Your task to perform on an android device: turn off improve location accuracy Image 0: 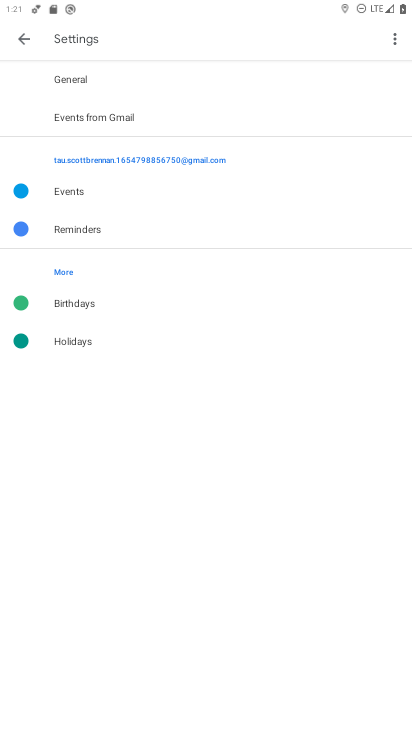
Step 0: press home button
Your task to perform on an android device: turn off improve location accuracy Image 1: 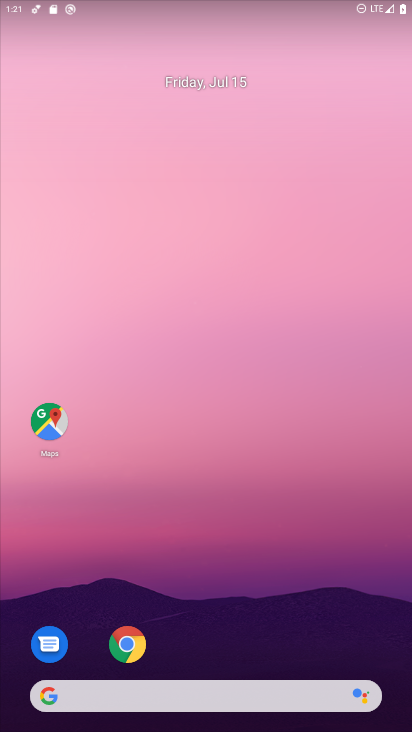
Step 1: click (116, 645)
Your task to perform on an android device: turn off improve location accuracy Image 2: 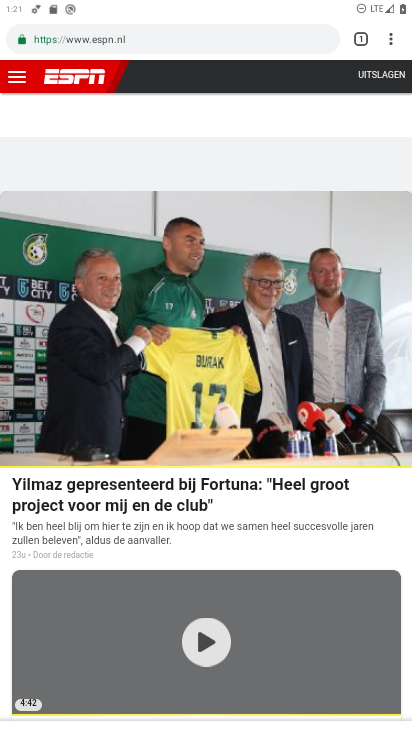
Step 2: click (360, 37)
Your task to perform on an android device: turn off improve location accuracy Image 3: 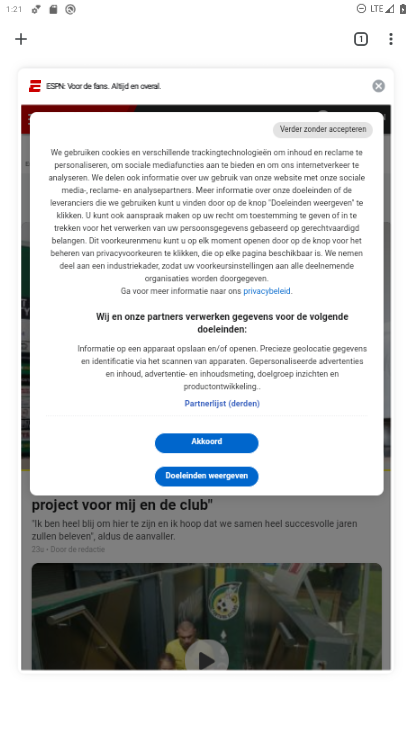
Step 3: click (377, 87)
Your task to perform on an android device: turn off improve location accuracy Image 4: 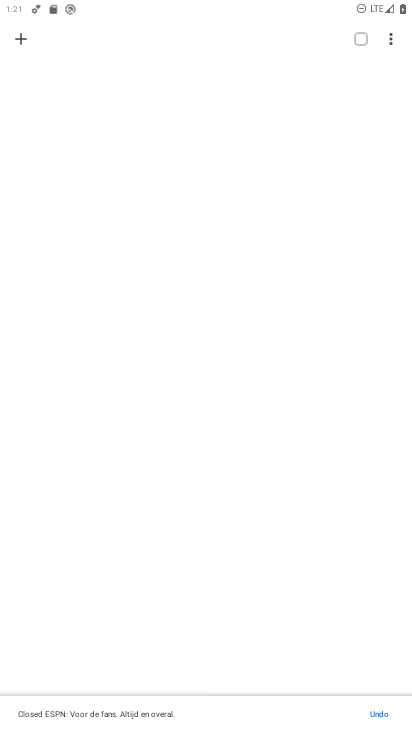
Step 4: click (18, 42)
Your task to perform on an android device: turn off improve location accuracy Image 5: 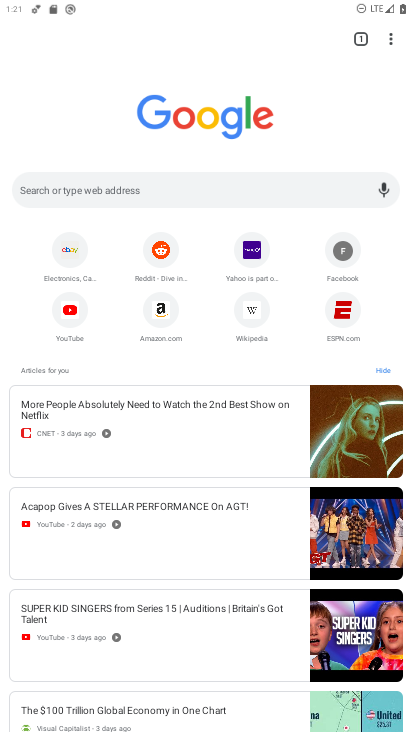
Step 5: press home button
Your task to perform on an android device: turn off improve location accuracy Image 6: 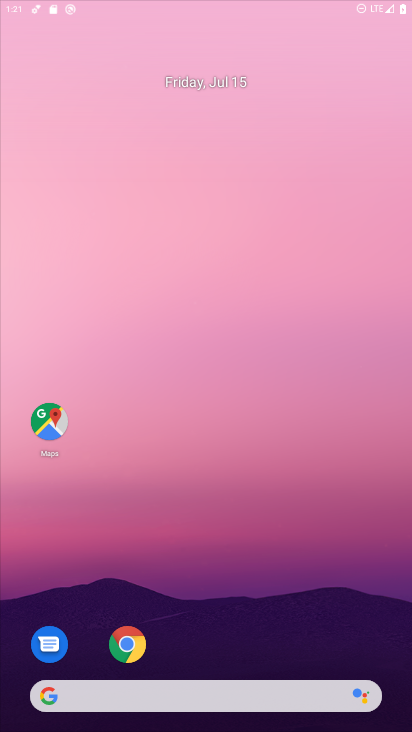
Step 6: click (267, 181)
Your task to perform on an android device: turn off improve location accuracy Image 7: 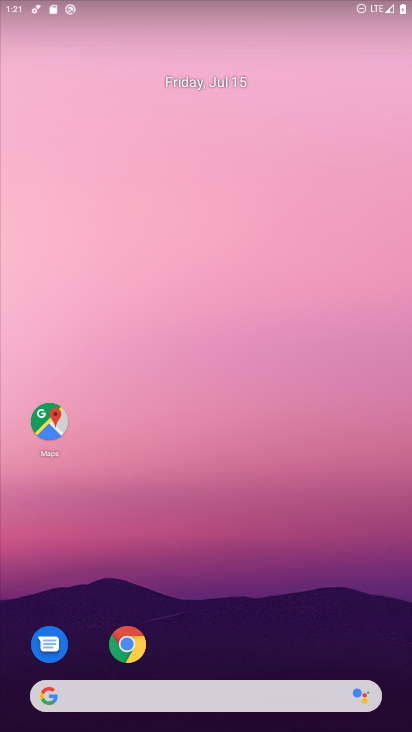
Step 7: drag from (63, 603) to (308, 79)
Your task to perform on an android device: turn off improve location accuracy Image 8: 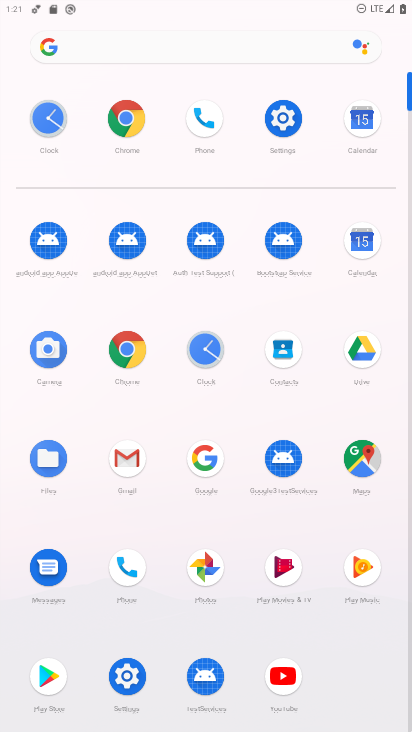
Step 8: click (287, 120)
Your task to perform on an android device: turn off improve location accuracy Image 9: 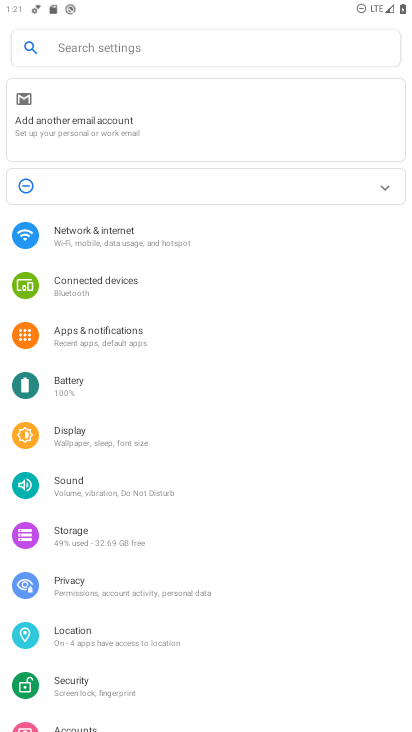
Step 9: click (88, 637)
Your task to perform on an android device: turn off improve location accuracy Image 10: 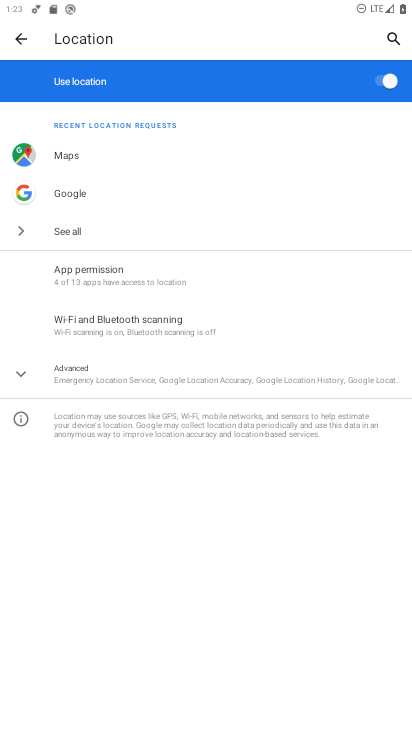
Step 10: task complete